Your task to perform on an android device: toggle notification dots Image 0: 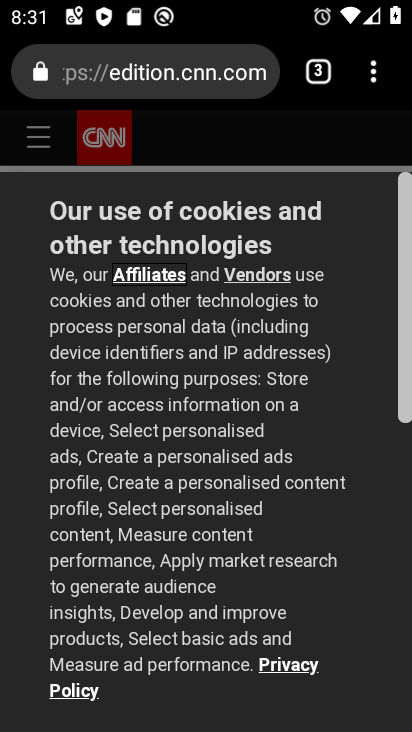
Step 0: press home button
Your task to perform on an android device: toggle notification dots Image 1: 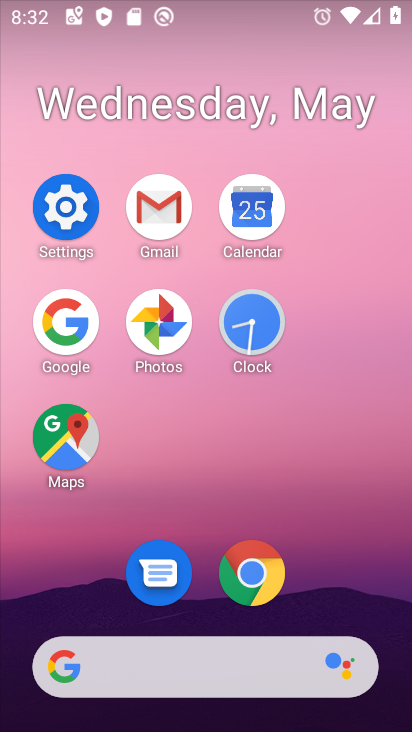
Step 1: click (56, 183)
Your task to perform on an android device: toggle notification dots Image 2: 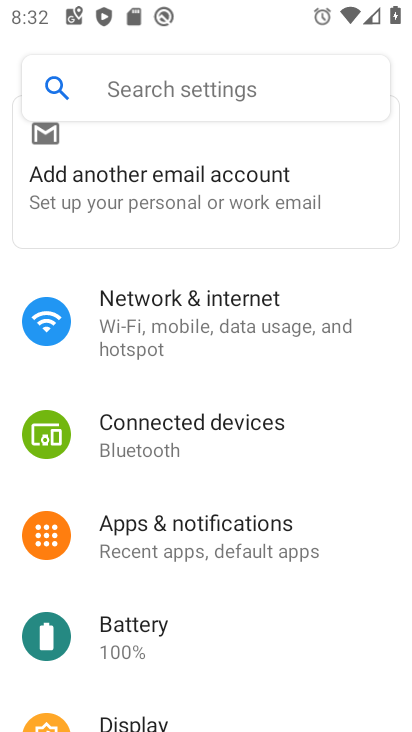
Step 2: click (239, 537)
Your task to perform on an android device: toggle notification dots Image 3: 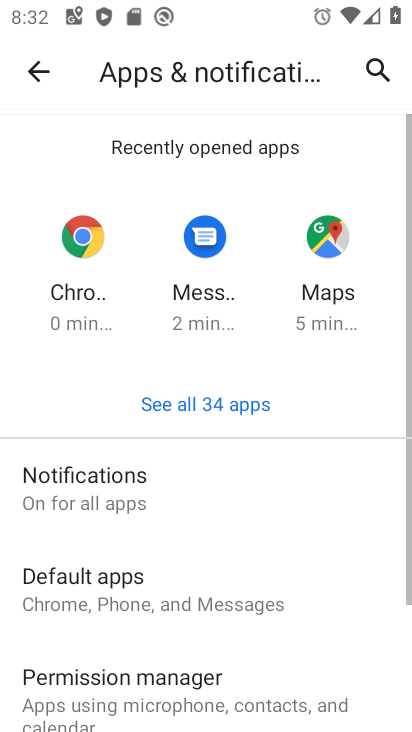
Step 3: click (243, 486)
Your task to perform on an android device: toggle notification dots Image 4: 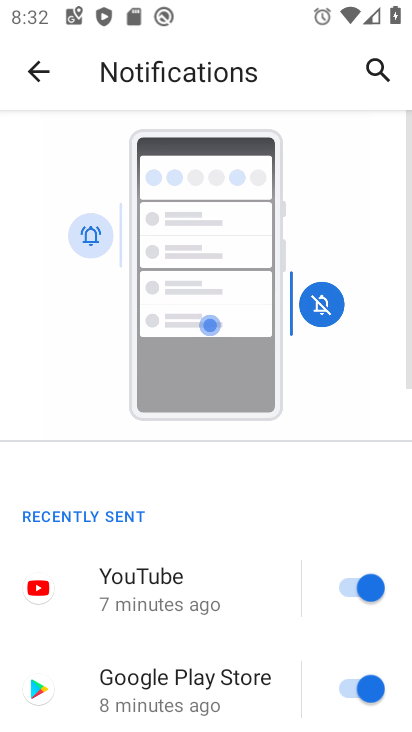
Step 4: drag from (231, 583) to (179, 82)
Your task to perform on an android device: toggle notification dots Image 5: 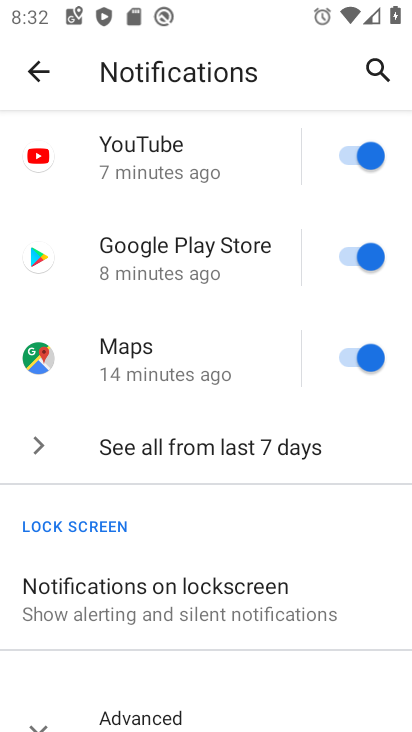
Step 5: drag from (203, 644) to (189, 229)
Your task to perform on an android device: toggle notification dots Image 6: 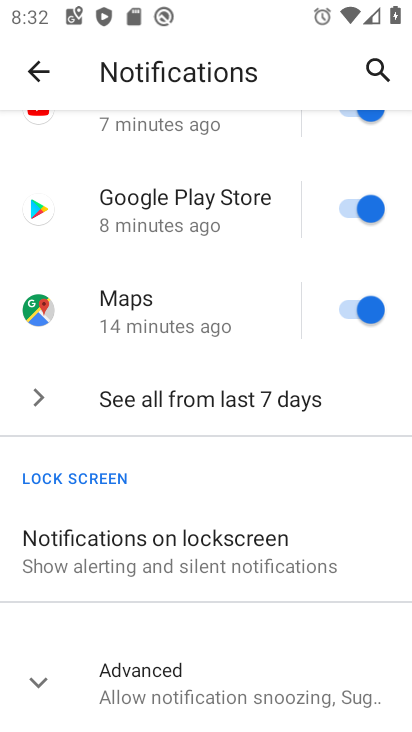
Step 6: click (242, 662)
Your task to perform on an android device: toggle notification dots Image 7: 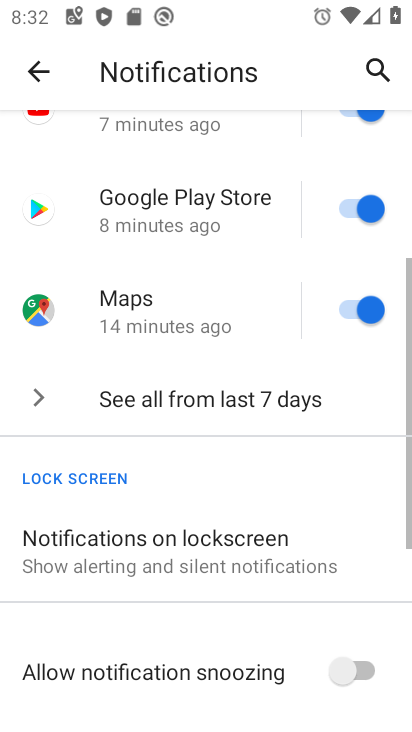
Step 7: drag from (231, 653) to (181, 130)
Your task to perform on an android device: toggle notification dots Image 8: 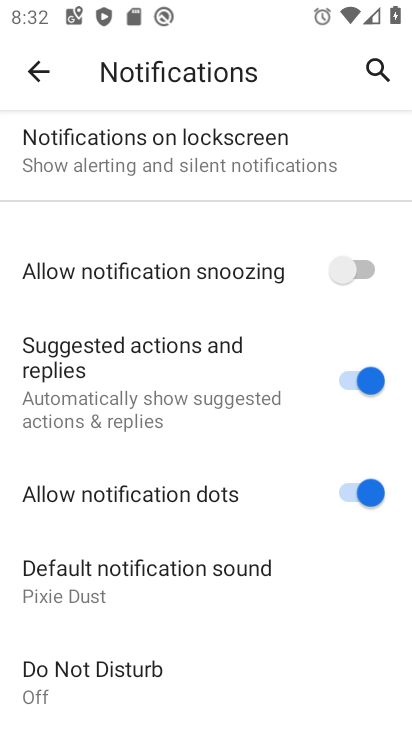
Step 8: click (348, 482)
Your task to perform on an android device: toggle notification dots Image 9: 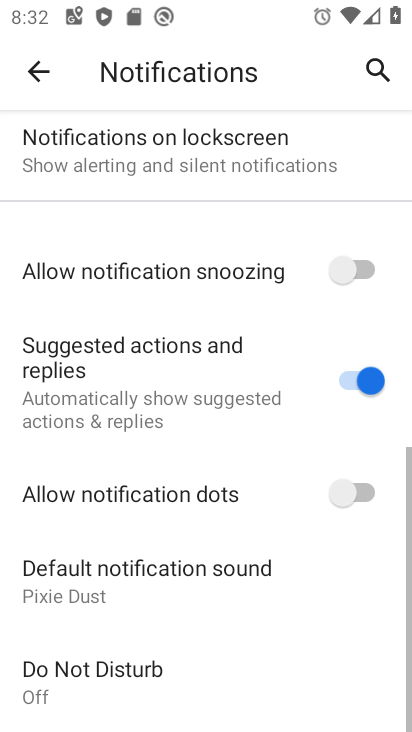
Step 9: task complete